Your task to perform on an android device: What's the weather going to be this weekend? Image 0: 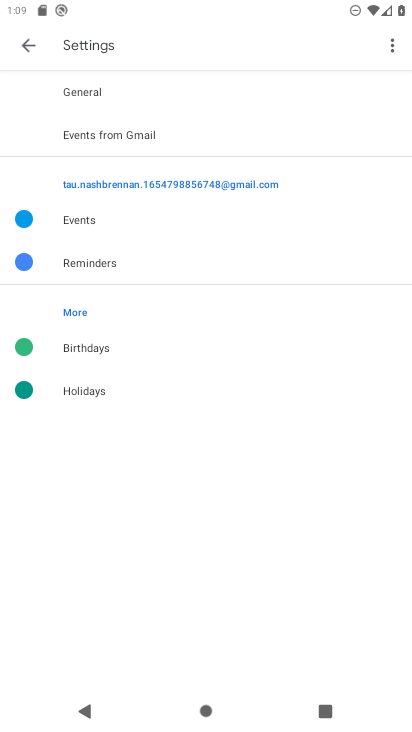
Step 0: press home button
Your task to perform on an android device: What's the weather going to be this weekend? Image 1: 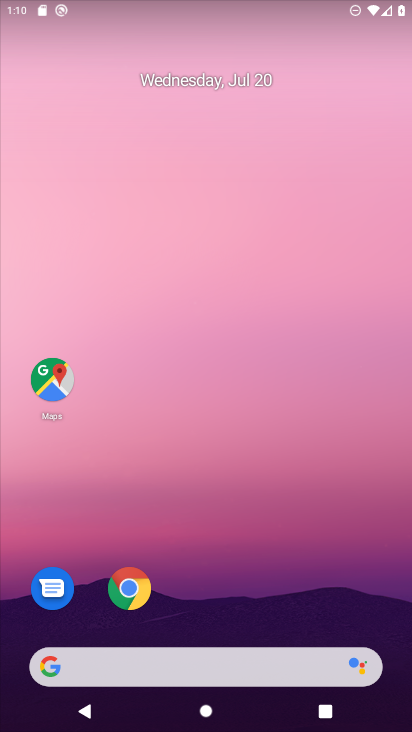
Step 1: drag from (256, 607) to (221, 224)
Your task to perform on an android device: What's the weather going to be this weekend? Image 2: 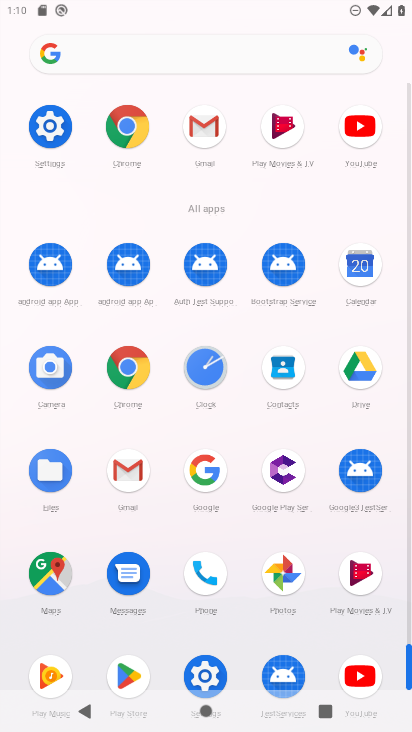
Step 2: click (354, 269)
Your task to perform on an android device: What's the weather going to be this weekend? Image 3: 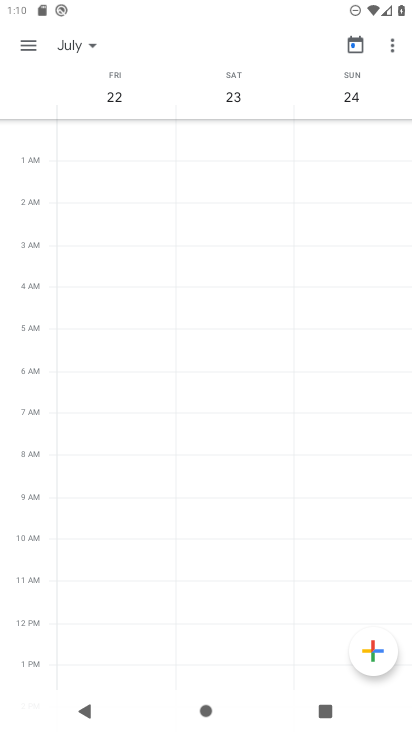
Step 3: click (22, 47)
Your task to perform on an android device: What's the weather going to be this weekend? Image 4: 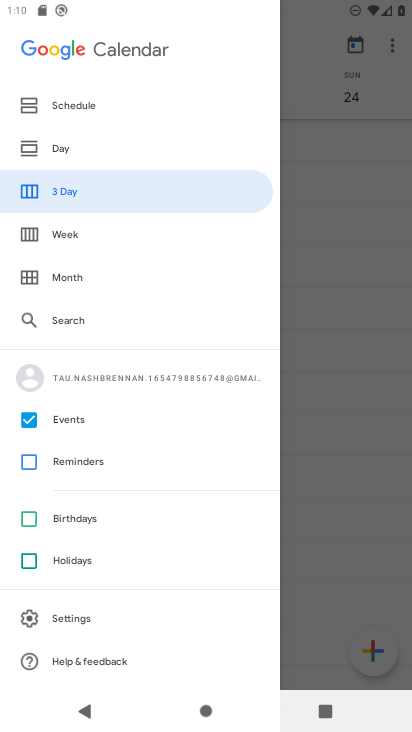
Step 4: press home button
Your task to perform on an android device: What's the weather going to be this weekend? Image 5: 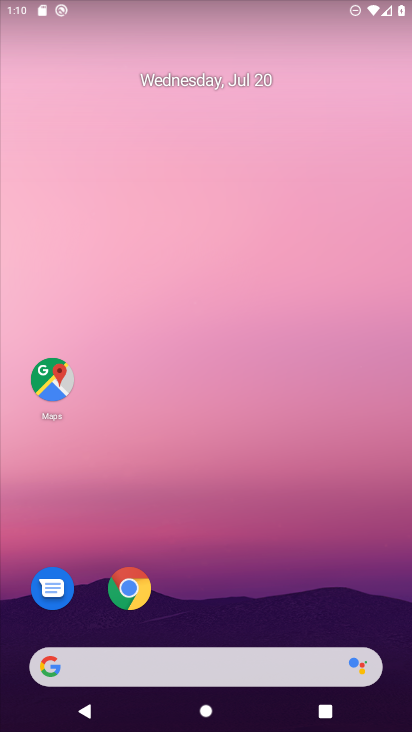
Step 5: click (134, 589)
Your task to perform on an android device: What's the weather going to be this weekend? Image 6: 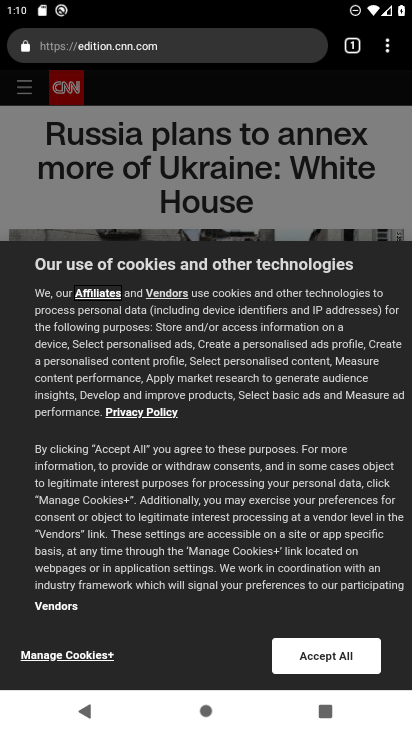
Step 6: click (241, 38)
Your task to perform on an android device: What's the weather going to be this weekend? Image 7: 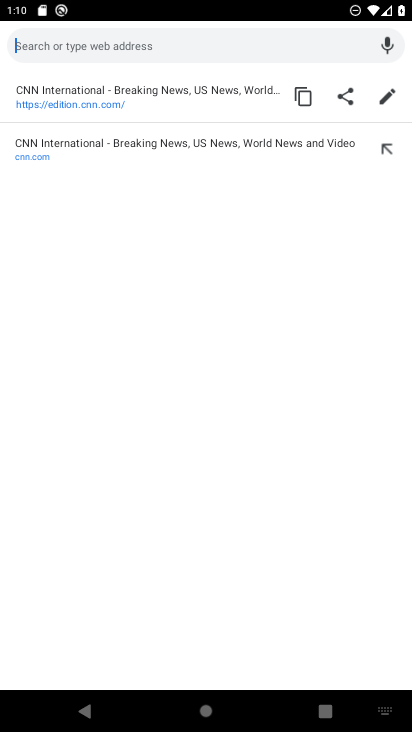
Step 7: type "What's the weather going to be this weekend?"
Your task to perform on an android device: What's the weather going to be this weekend? Image 8: 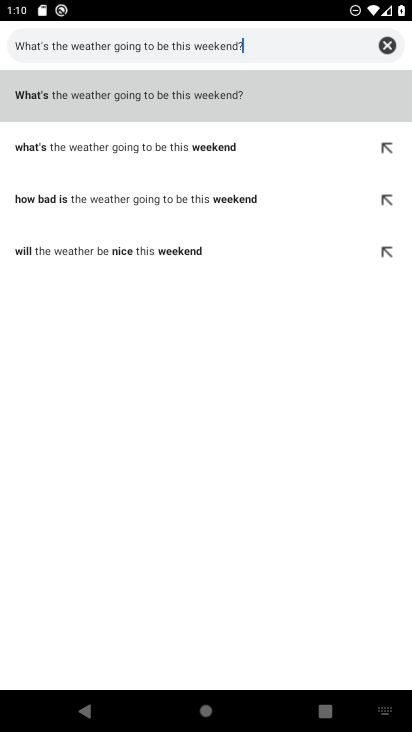
Step 8: click (281, 103)
Your task to perform on an android device: What's the weather going to be this weekend? Image 9: 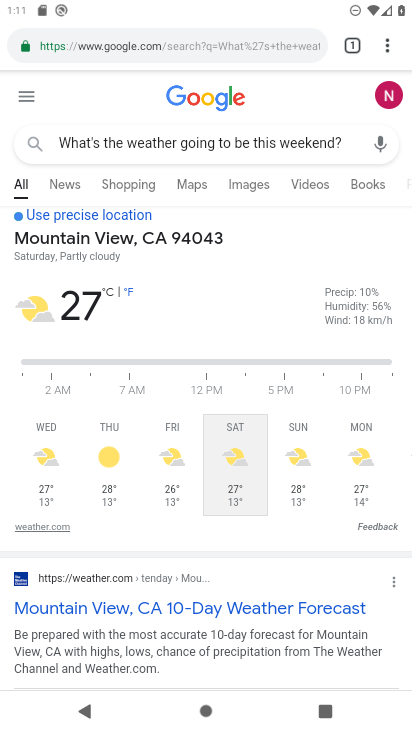
Step 9: task complete